Your task to perform on an android device: Go to settings Image 0: 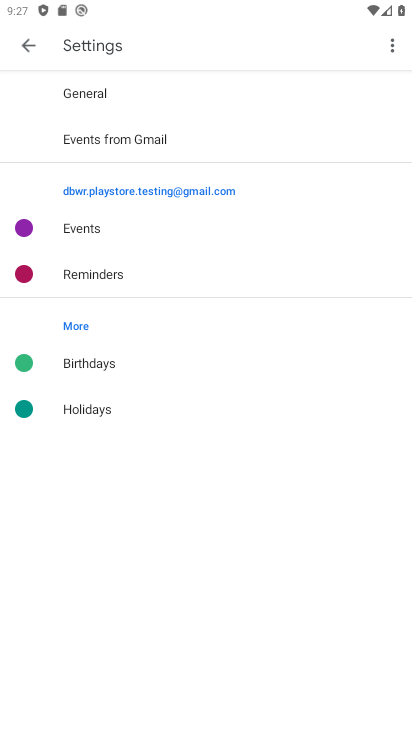
Step 0: press home button
Your task to perform on an android device: Go to settings Image 1: 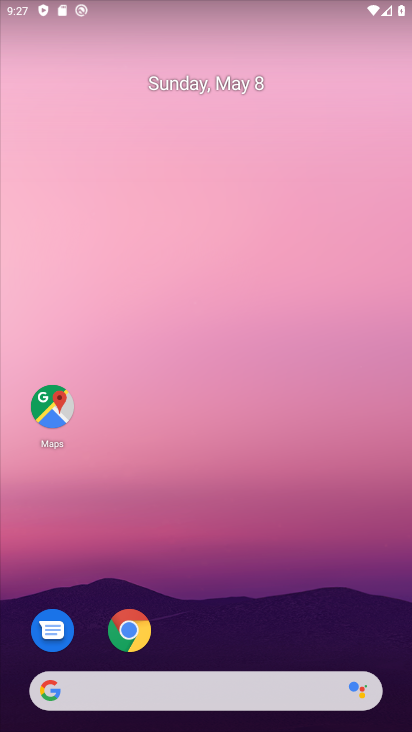
Step 1: drag from (333, 615) to (347, 181)
Your task to perform on an android device: Go to settings Image 2: 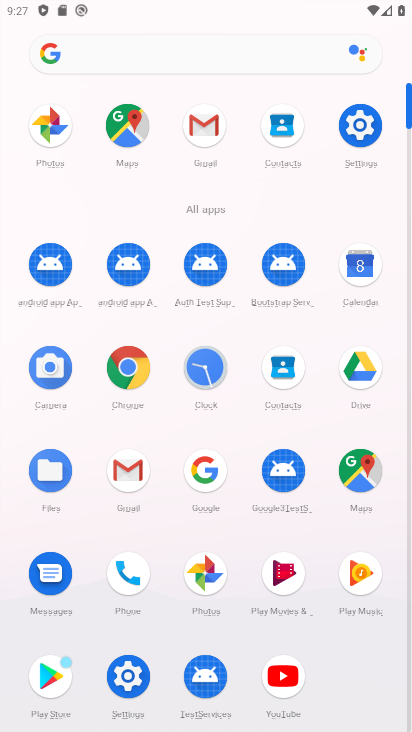
Step 2: click (374, 120)
Your task to perform on an android device: Go to settings Image 3: 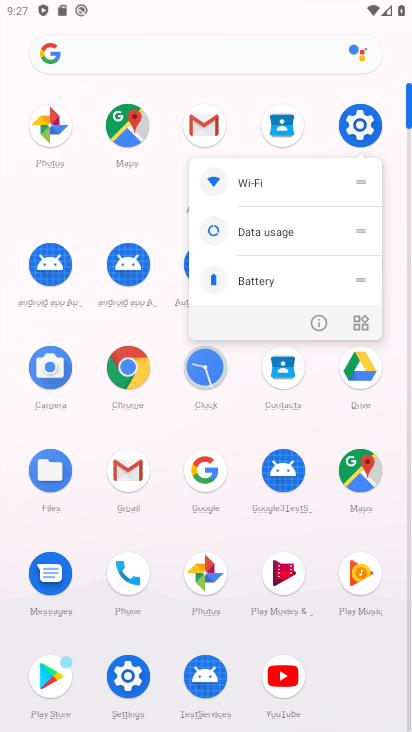
Step 3: click (374, 120)
Your task to perform on an android device: Go to settings Image 4: 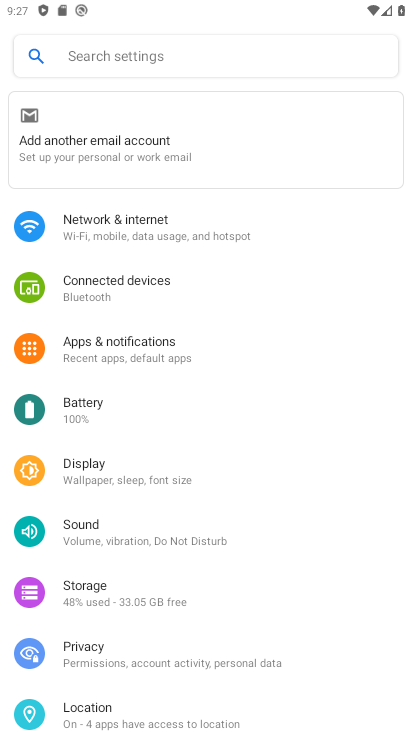
Step 4: task complete